Your task to perform on an android device: Open accessibility settings Image 0: 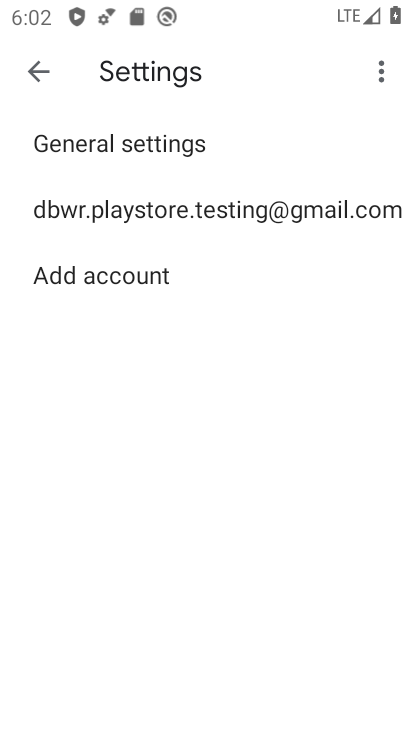
Step 0: press home button
Your task to perform on an android device: Open accessibility settings Image 1: 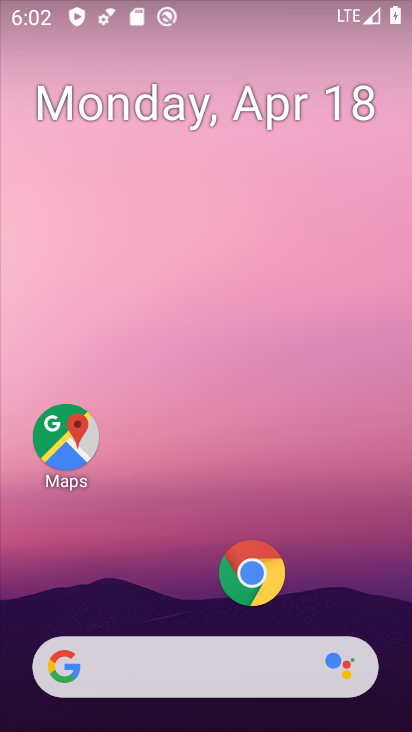
Step 1: drag from (193, 598) to (287, 11)
Your task to perform on an android device: Open accessibility settings Image 2: 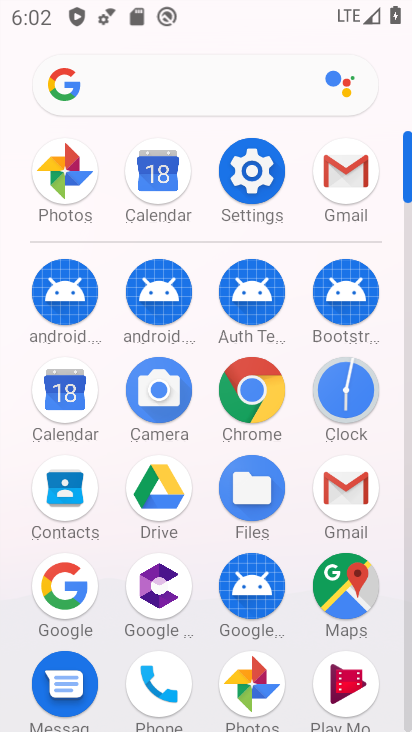
Step 2: click (255, 186)
Your task to perform on an android device: Open accessibility settings Image 3: 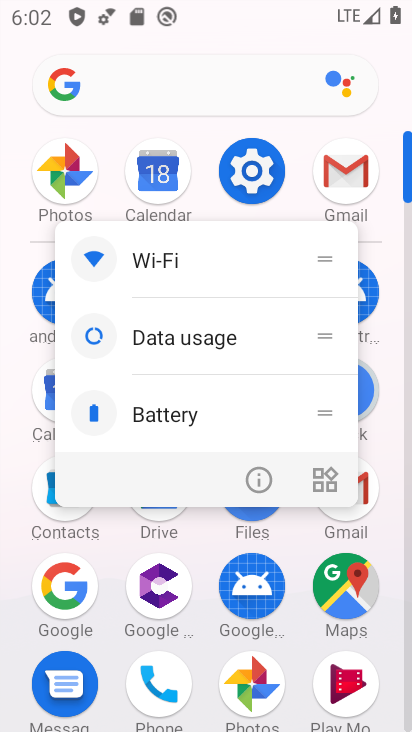
Step 3: click (249, 171)
Your task to perform on an android device: Open accessibility settings Image 4: 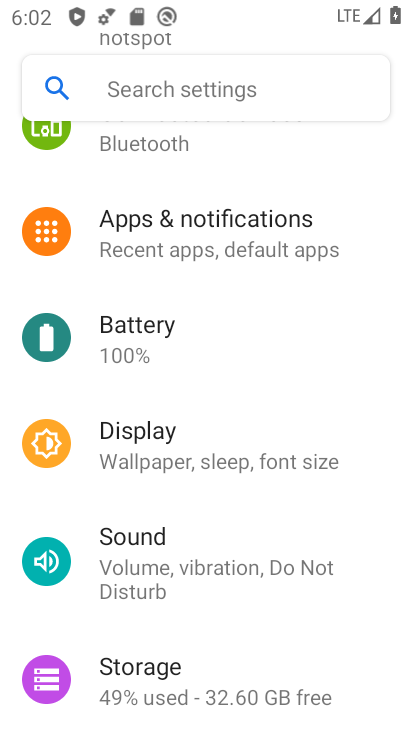
Step 4: drag from (195, 632) to (324, 40)
Your task to perform on an android device: Open accessibility settings Image 5: 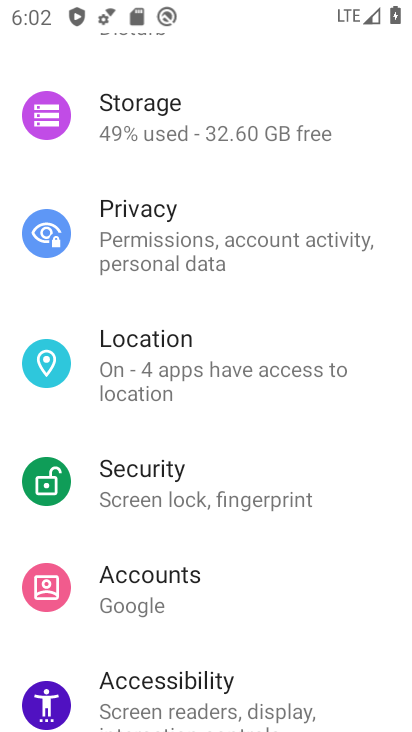
Step 5: click (158, 688)
Your task to perform on an android device: Open accessibility settings Image 6: 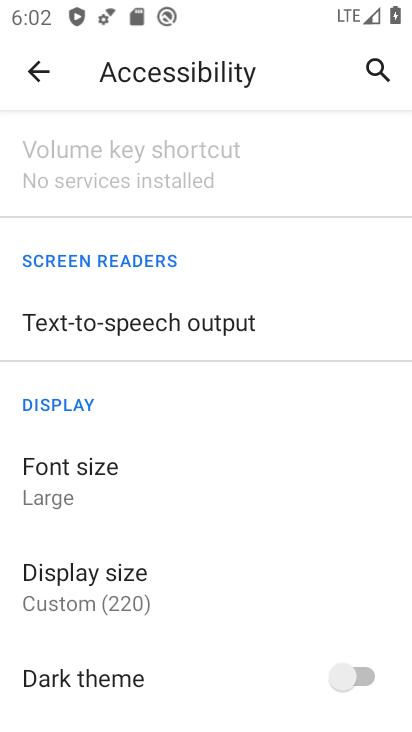
Step 6: task complete